Your task to perform on an android device: snooze an email in the gmail app Image 0: 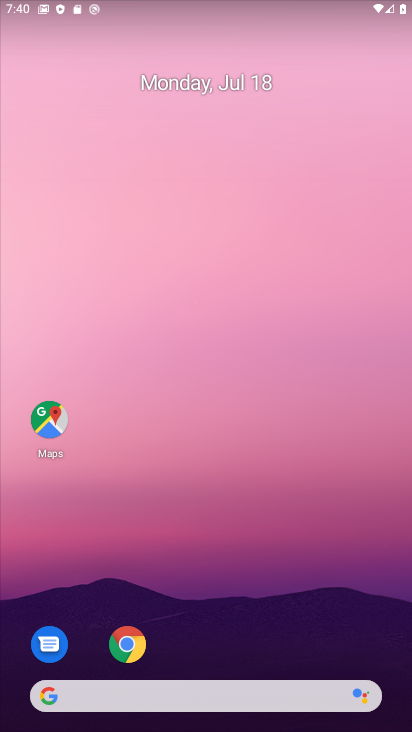
Step 0: drag from (225, 697) to (303, 354)
Your task to perform on an android device: snooze an email in the gmail app Image 1: 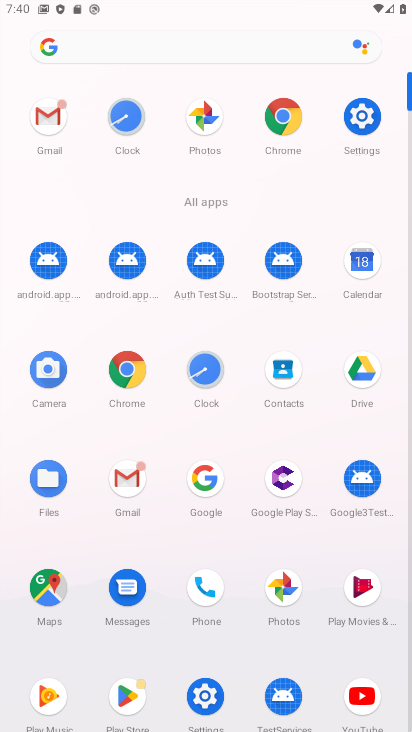
Step 1: click (130, 479)
Your task to perform on an android device: snooze an email in the gmail app Image 2: 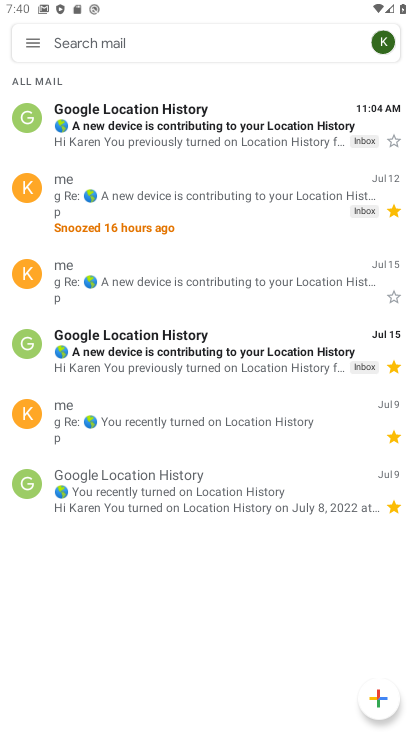
Step 2: click (35, 116)
Your task to perform on an android device: snooze an email in the gmail app Image 3: 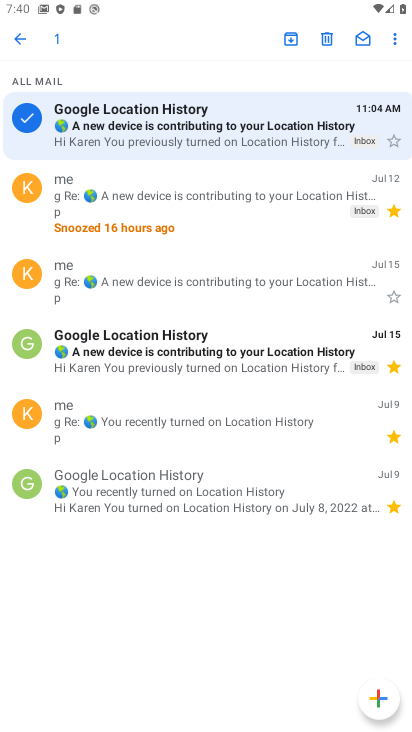
Step 3: click (395, 39)
Your task to perform on an android device: snooze an email in the gmail app Image 4: 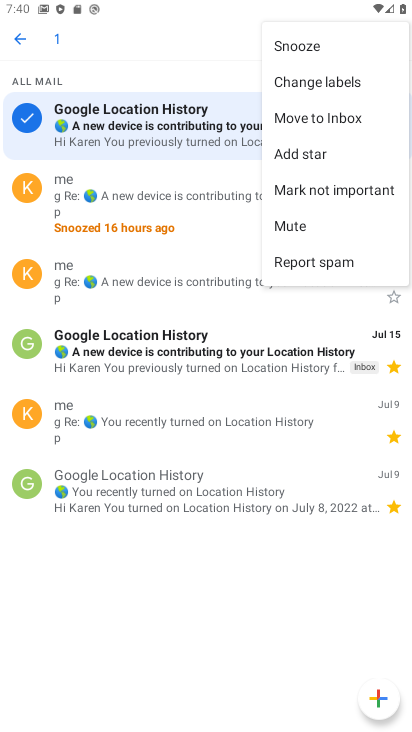
Step 4: click (295, 46)
Your task to perform on an android device: snooze an email in the gmail app Image 5: 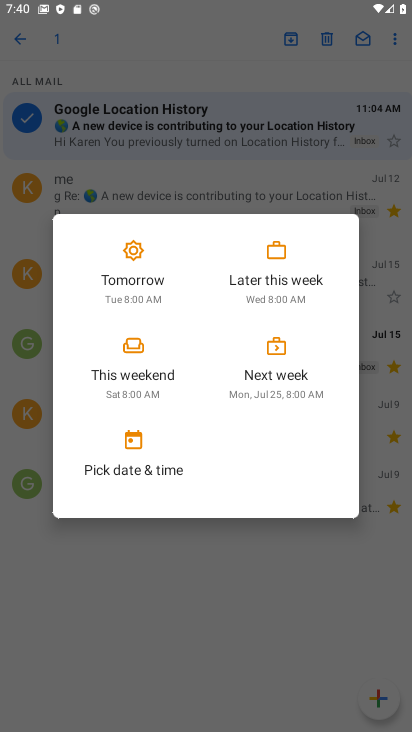
Step 5: click (136, 284)
Your task to perform on an android device: snooze an email in the gmail app Image 6: 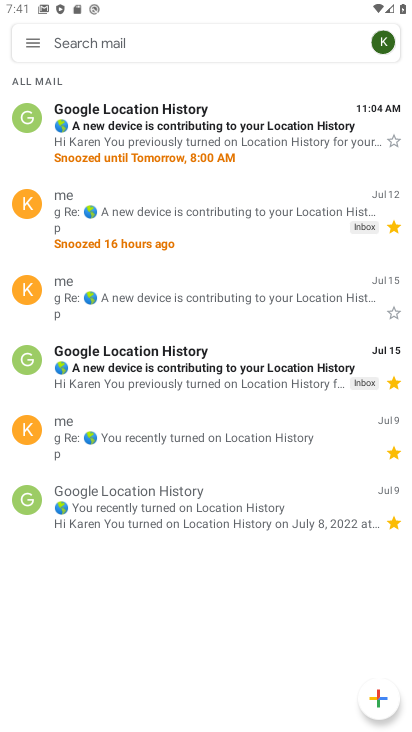
Step 6: task complete